Your task to perform on an android device: find which apps use the phone's location Image 0: 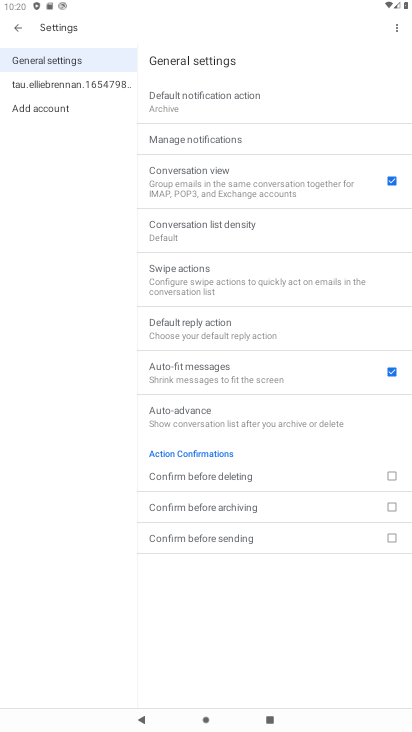
Step 0: press home button
Your task to perform on an android device: find which apps use the phone's location Image 1: 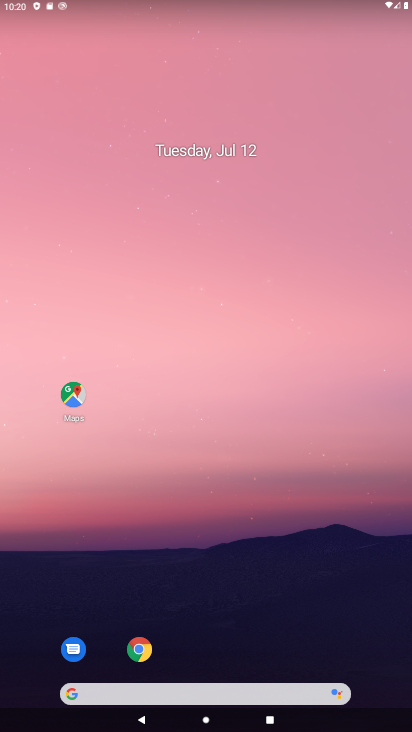
Step 1: drag from (364, 647) to (337, 123)
Your task to perform on an android device: find which apps use the phone's location Image 2: 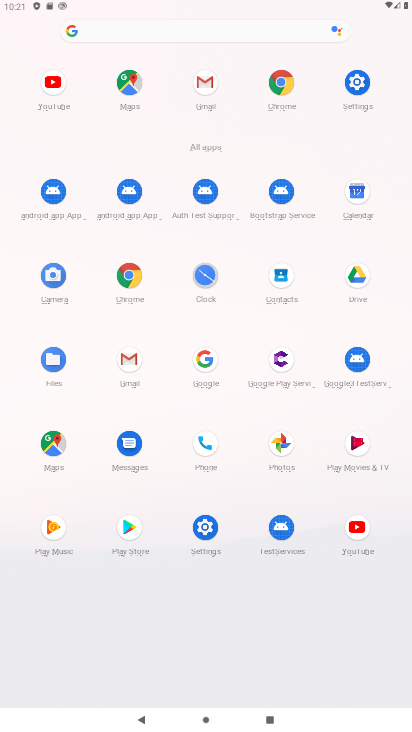
Step 2: click (207, 524)
Your task to perform on an android device: find which apps use the phone's location Image 3: 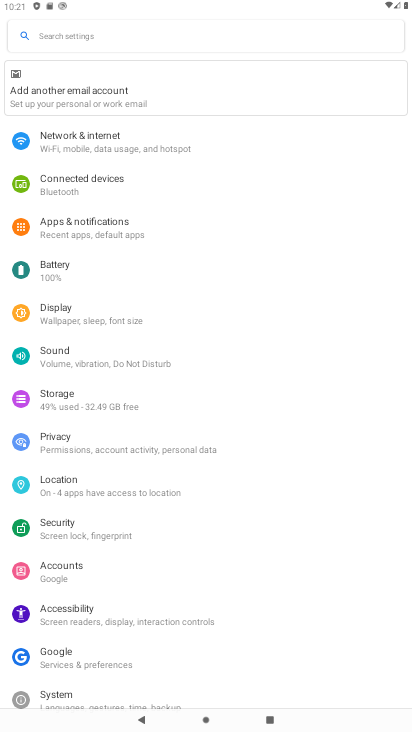
Step 3: click (68, 480)
Your task to perform on an android device: find which apps use the phone's location Image 4: 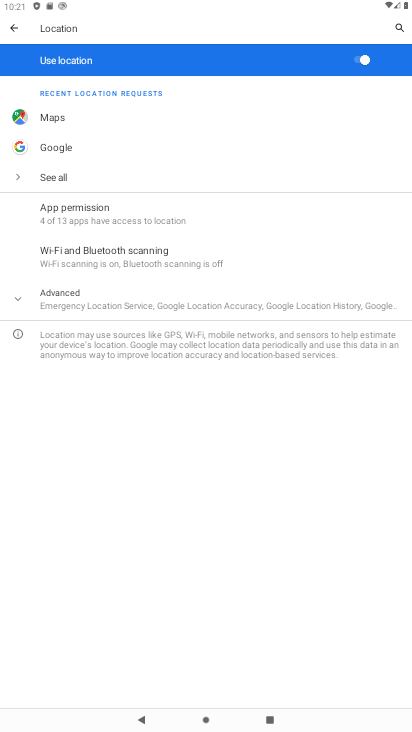
Step 4: click (15, 296)
Your task to perform on an android device: find which apps use the phone's location Image 5: 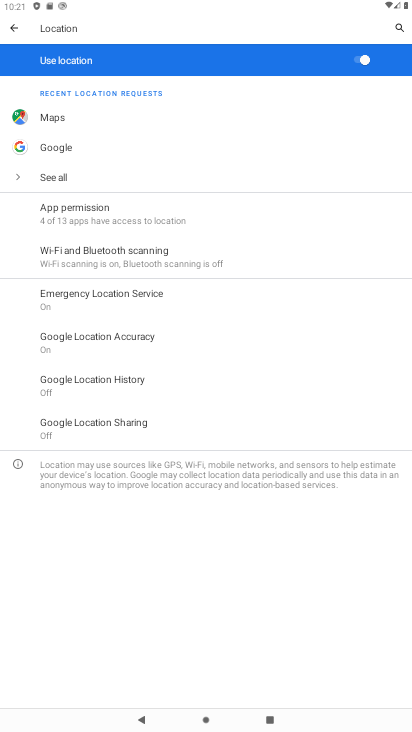
Step 5: click (59, 201)
Your task to perform on an android device: find which apps use the phone's location Image 6: 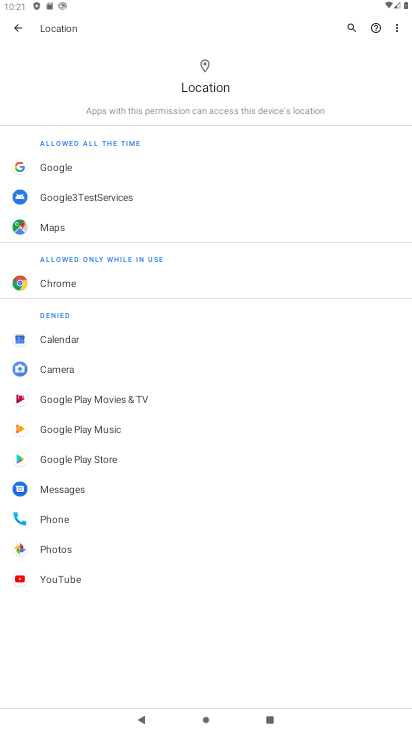
Step 6: click (61, 551)
Your task to perform on an android device: find which apps use the phone's location Image 7: 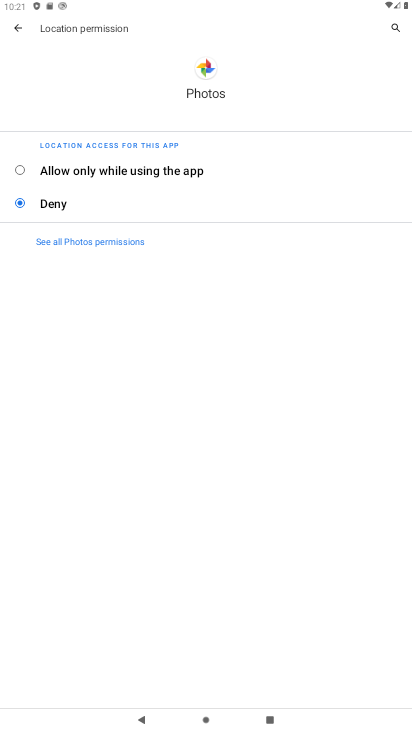
Step 7: task complete